Your task to perform on an android device: Go to settings Image 0: 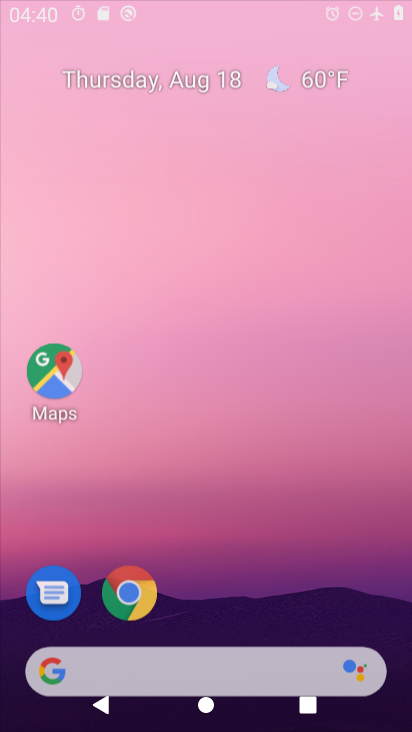
Step 0: press home button
Your task to perform on an android device: Go to settings Image 1: 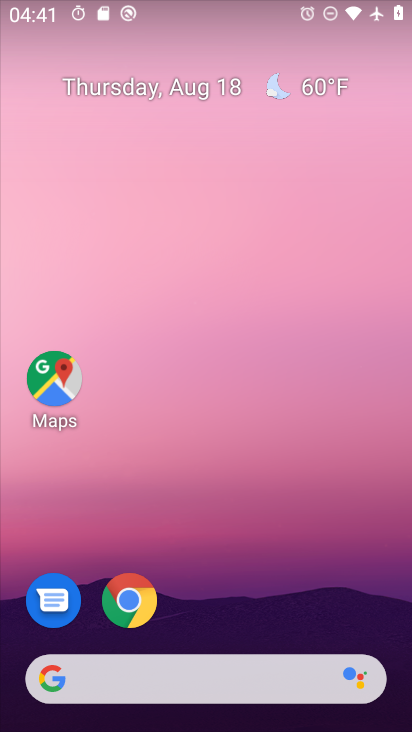
Step 1: drag from (244, 627) to (216, 54)
Your task to perform on an android device: Go to settings Image 2: 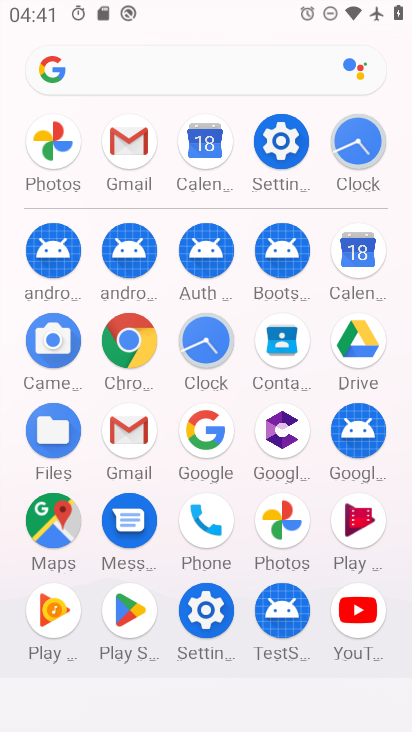
Step 2: click (274, 146)
Your task to perform on an android device: Go to settings Image 3: 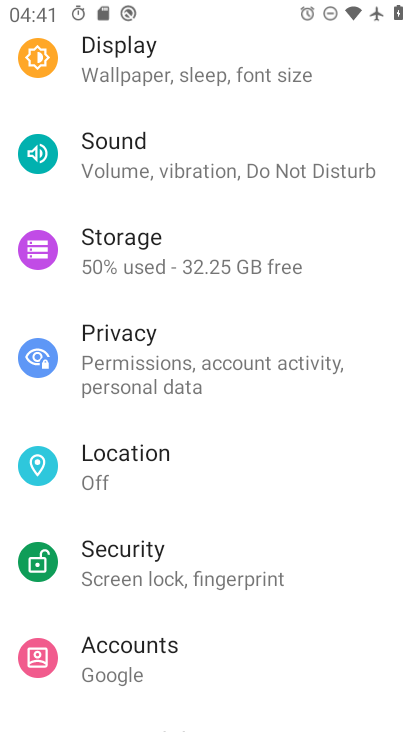
Step 3: task complete